Your task to perform on an android device: turn on wifi Image 0: 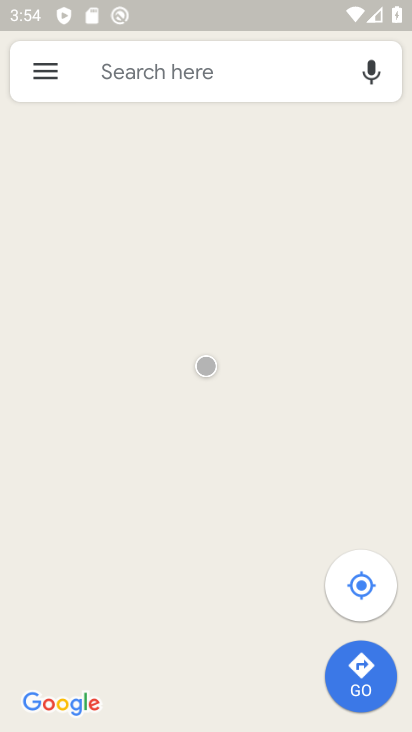
Step 0: press home button
Your task to perform on an android device: turn on wifi Image 1: 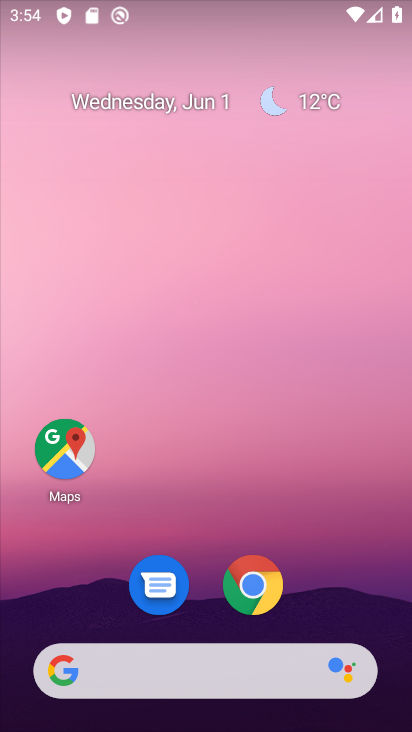
Step 1: drag from (227, 484) to (197, 1)
Your task to perform on an android device: turn on wifi Image 2: 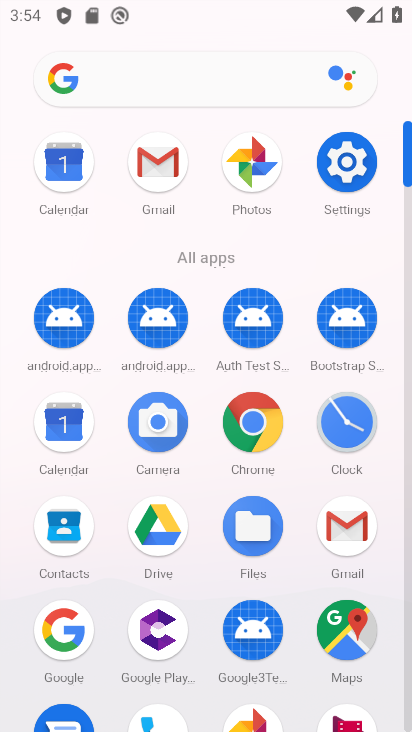
Step 2: click (341, 156)
Your task to perform on an android device: turn on wifi Image 3: 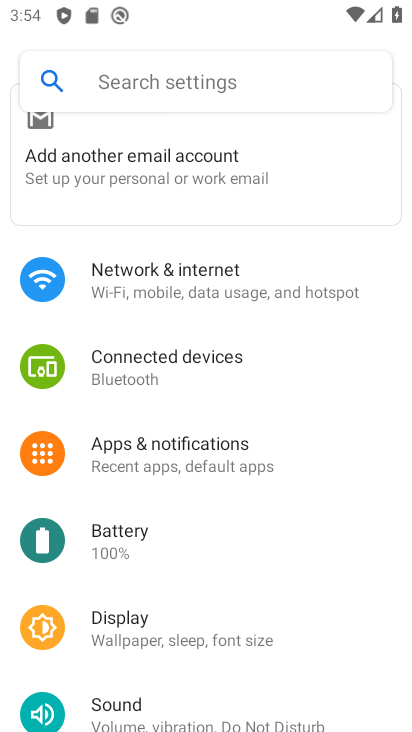
Step 3: click (226, 261)
Your task to perform on an android device: turn on wifi Image 4: 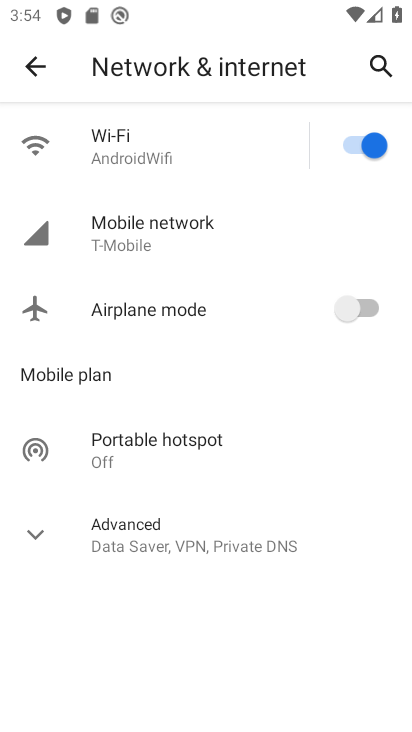
Step 4: task complete